Your task to perform on an android device: Open maps Image 0: 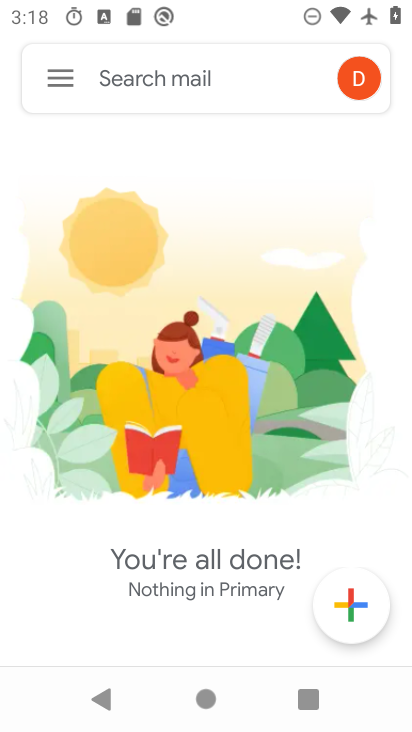
Step 0: press home button
Your task to perform on an android device: Open maps Image 1: 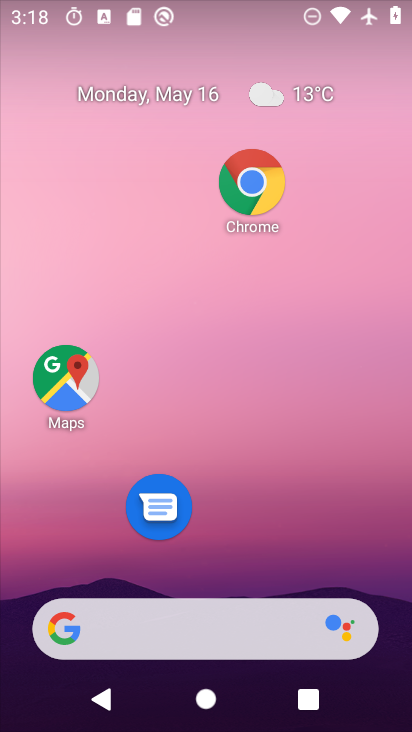
Step 1: drag from (269, 578) to (183, 163)
Your task to perform on an android device: Open maps Image 2: 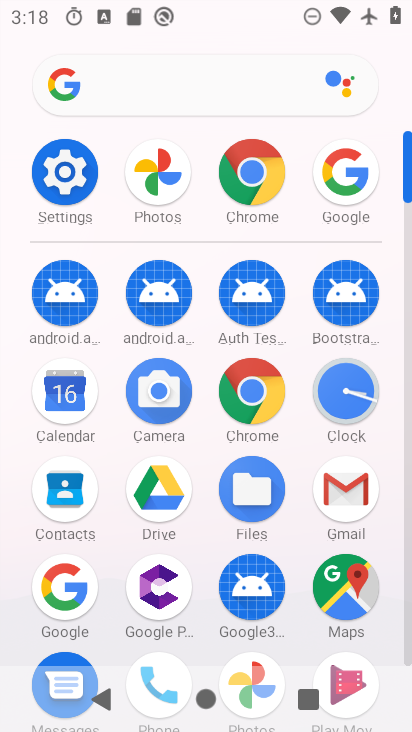
Step 2: click (334, 589)
Your task to perform on an android device: Open maps Image 3: 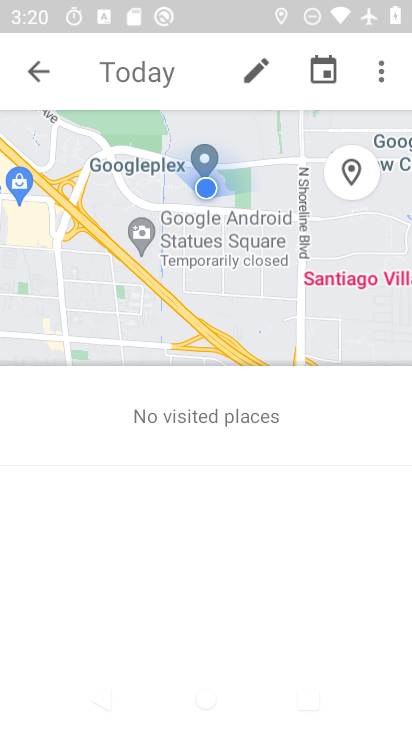
Step 3: task complete